Your task to perform on an android device: turn off sleep mode Image 0: 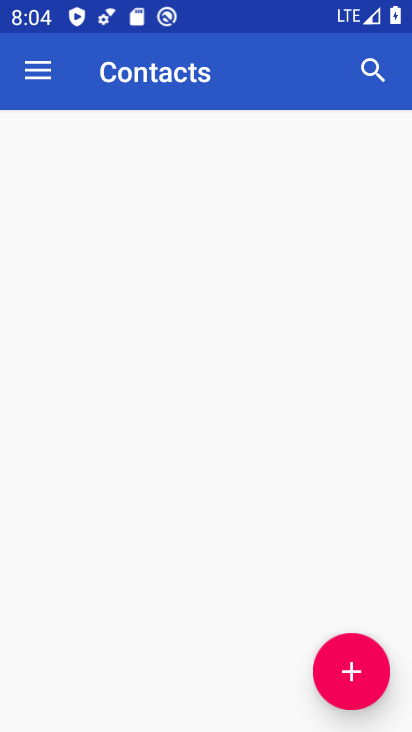
Step 0: press home button
Your task to perform on an android device: turn off sleep mode Image 1: 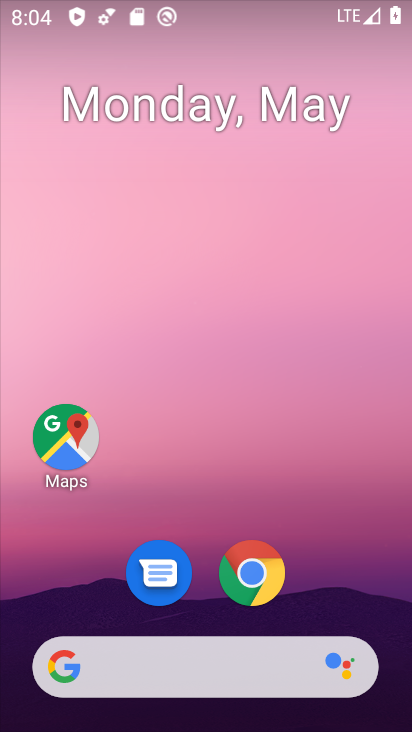
Step 1: drag from (66, 621) to (179, 129)
Your task to perform on an android device: turn off sleep mode Image 2: 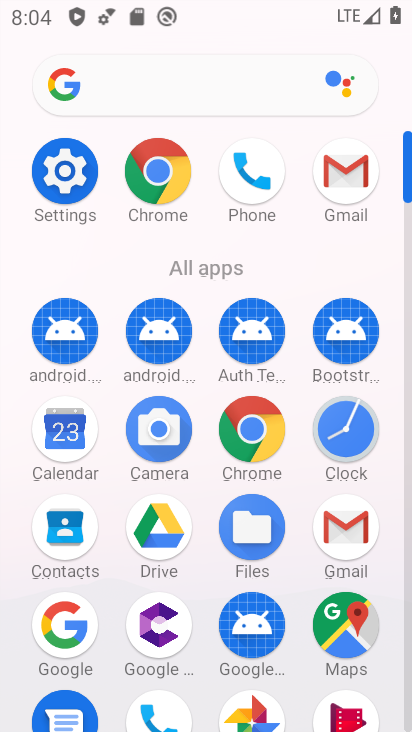
Step 2: drag from (171, 651) to (248, 325)
Your task to perform on an android device: turn off sleep mode Image 3: 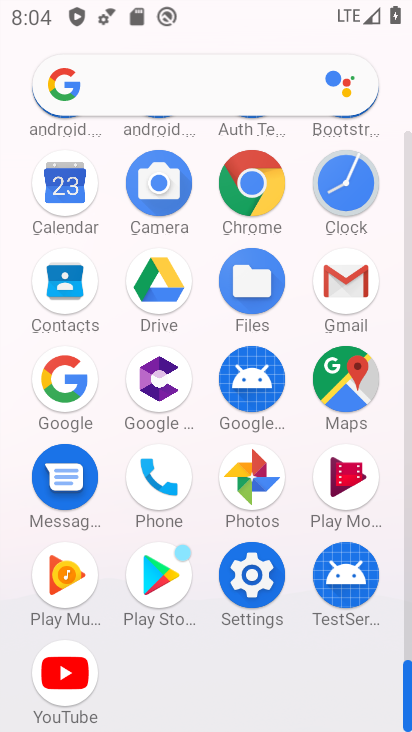
Step 3: click (255, 572)
Your task to perform on an android device: turn off sleep mode Image 4: 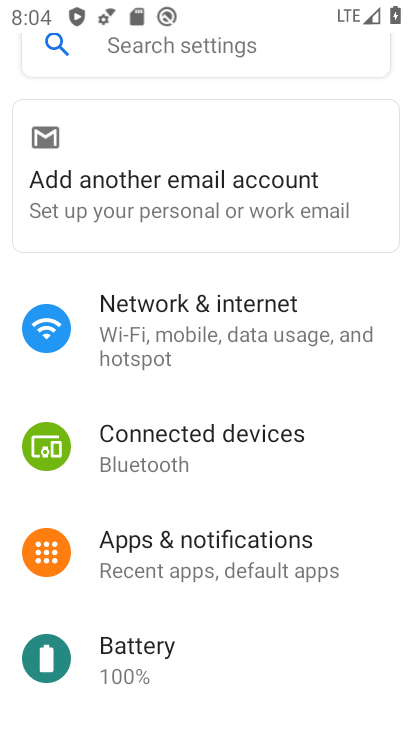
Step 4: drag from (163, 591) to (204, 179)
Your task to perform on an android device: turn off sleep mode Image 5: 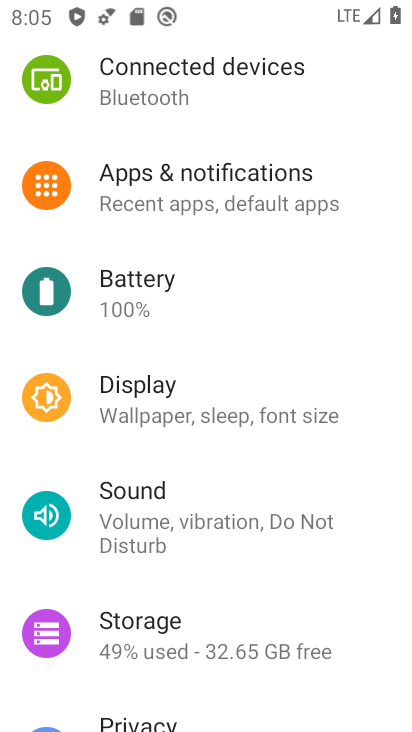
Step 5: drag from (207, 532) to (238, 246)
Your task to perform on an android device: turn off sleep mode Image 6: 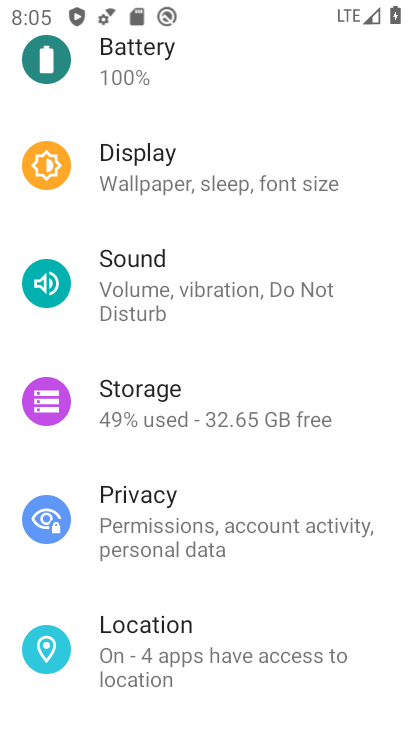
Step 6: drag from (228, 601) to (200, 663)
Your task to perform on an android device: turn off sleep mode Image 7: 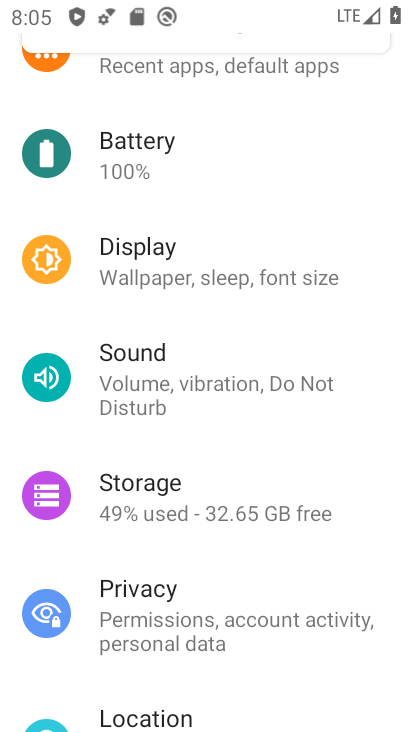
Step 7: click (151, 277)
Your task to perform on an android device: turn off sleep mode Image 8: 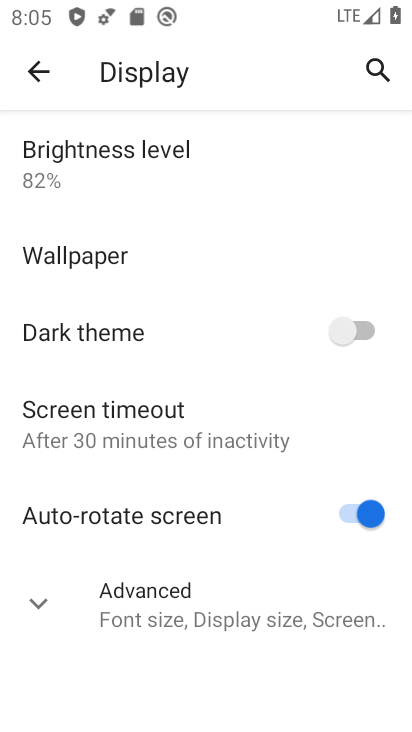
Step 8: click (175, 634)
Your task to perform on an android device: turn off sleep mode Image 9: 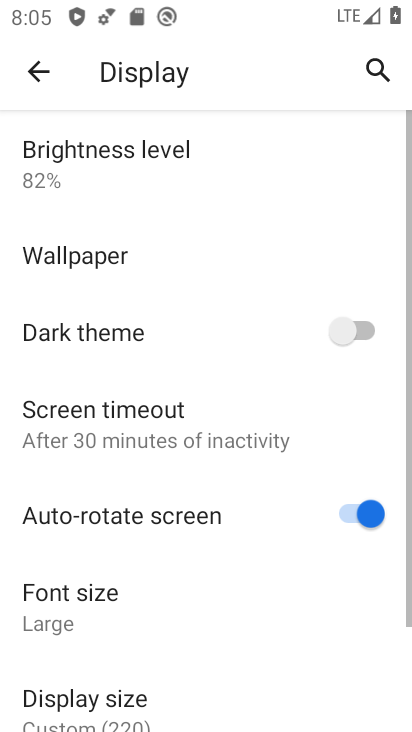
Step 9: task complete